Your task to perform on an android device: delete a single message in the gmail app Image 0: 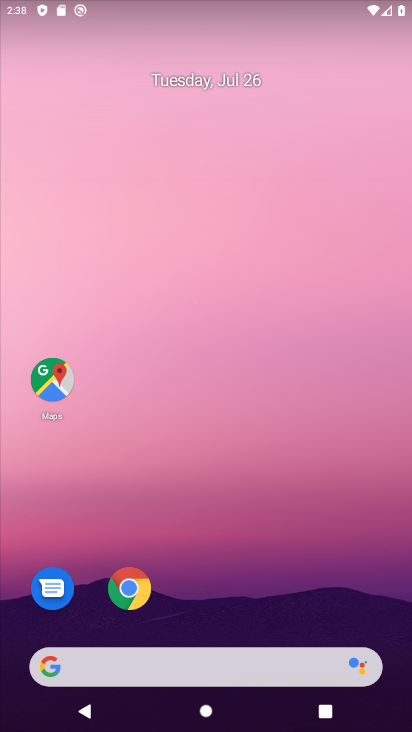
Step 0: drag from (245, 606) to (190, 11)
Your task to perform on an android device: delete a single message in the gmail app Image 1: 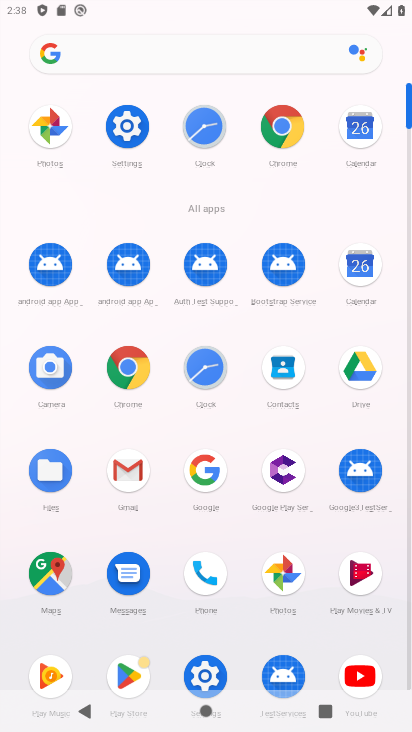
Step 1: click (120, 471)
Your task to perform on an android device: delete a single message in the gmail app Image 2: 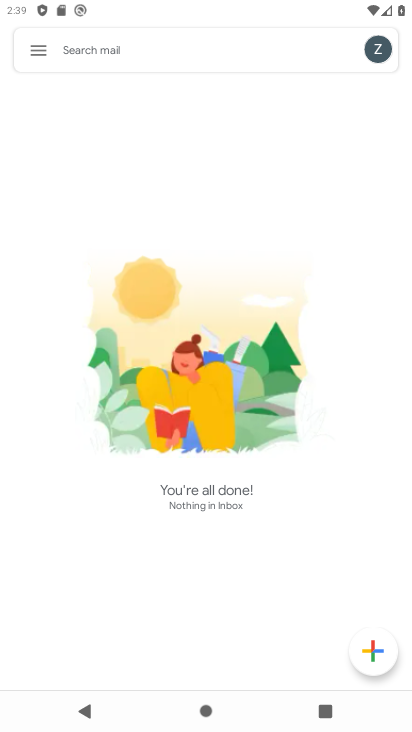
Step 2: task complete